Your task to perform on an android device: Go to eBay Image 0: 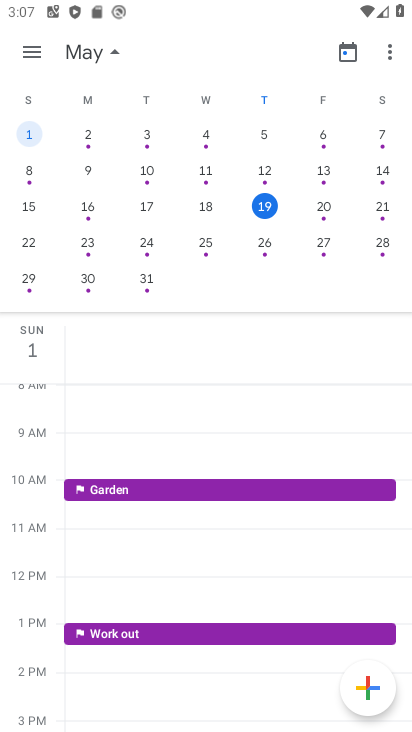
Step 0: press home button
Your task to perform on an android device: Go to eBay Image 1: 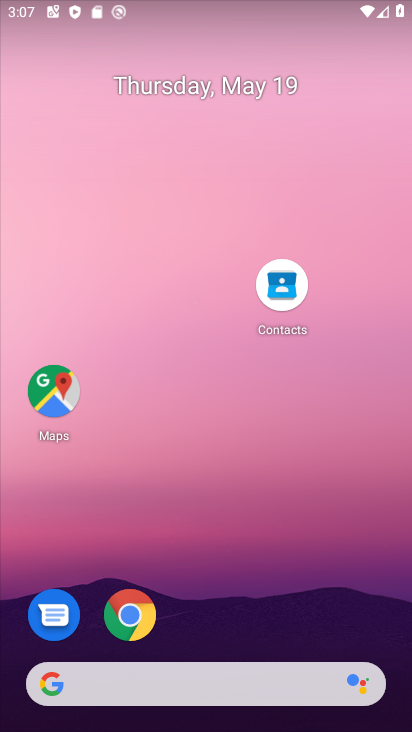
Step 1: drag from (276, 519) to (297, 160)
Your task to perform on an android device: Go to eBay Image 2: 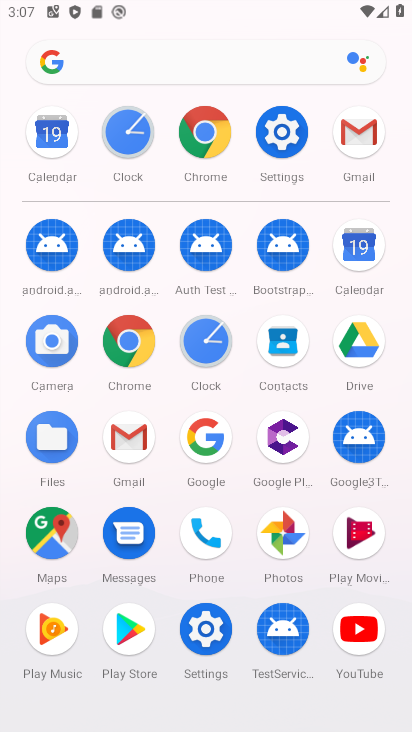
Step 2: click (149, 348)
Your task to perform on an android device: Go to eBay Image 3: 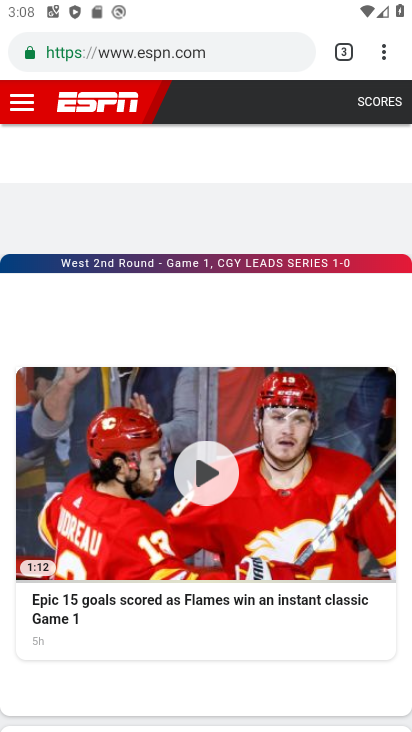
Step 3: click (261, 56)
Your task to perform on an android device: Go to eBay Image 4: 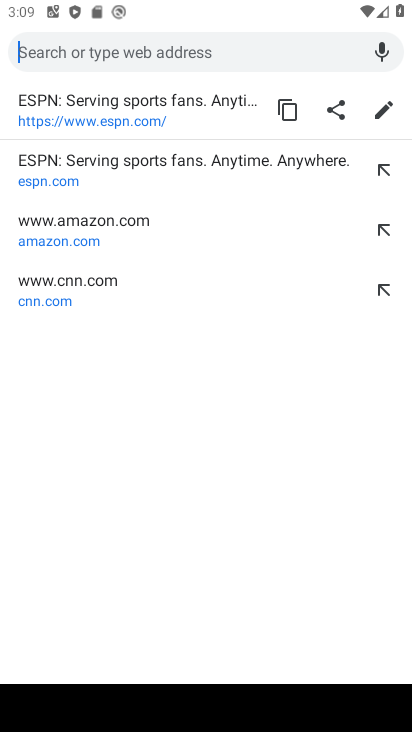
Step 4: type "ebay"
Your task to perform on an android device: Go to eBay Image 5: 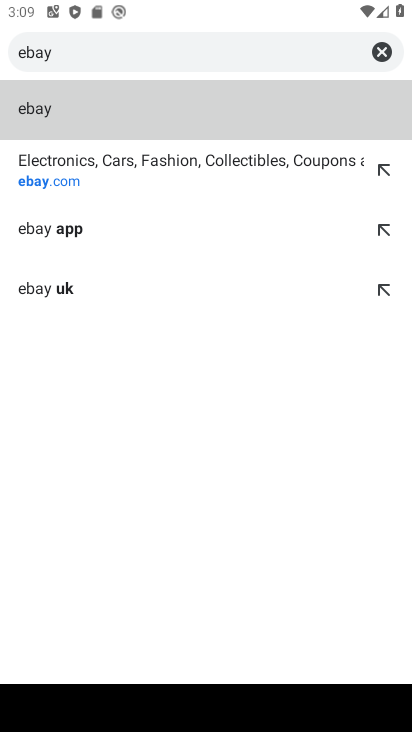
Step 5: click (201, 192)
Your task to perform on an android device: Go to eBay Image 6: 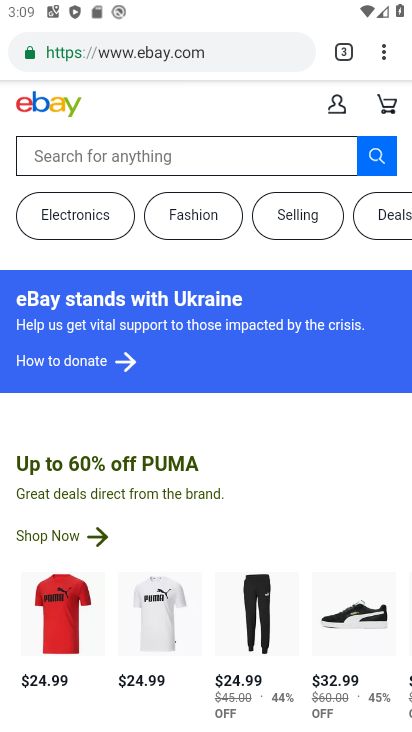
Step 6: task complete